Your task to perform on an android device: open wifi settings Image 0: 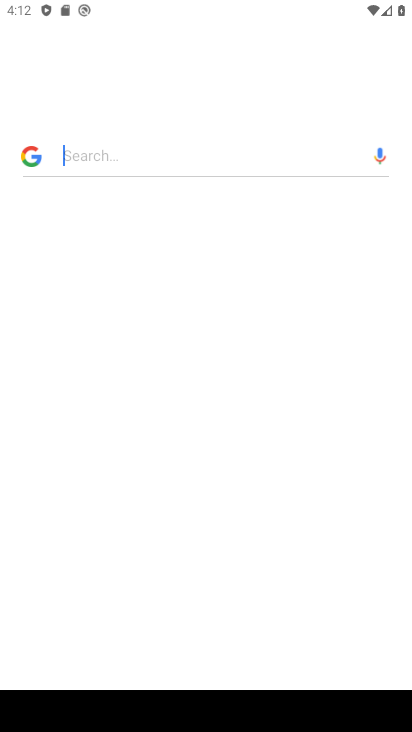
Step 0: drag from (318, 573) to (326, 395)
Your task to perform on an android device: open wifi settings Image 1: 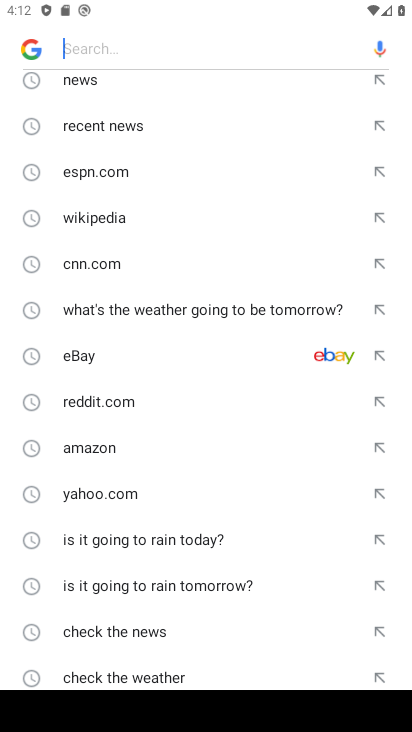
Step 1: press home button
Your task to perform on an android device: open wifi settings Image 2: 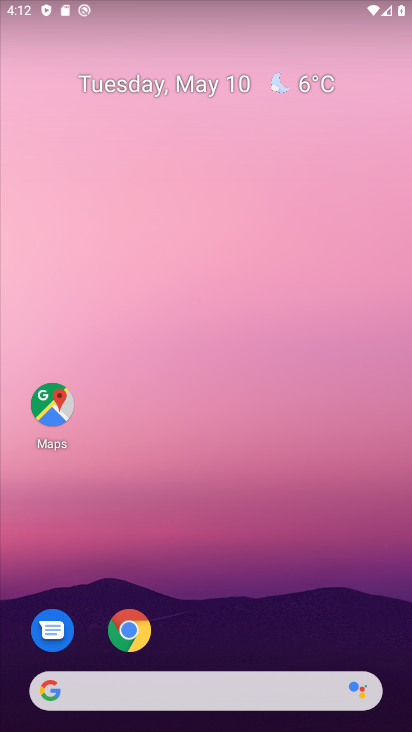
Step 2: drag from (329, 575) to (228, 54)
Your task to perform on an android device: open wifi settings Image 3: 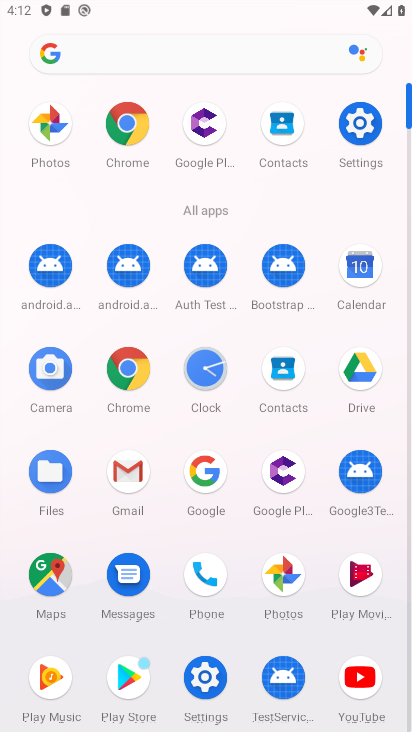
Step 3: click (371, 118)
Your task to perform on an android device: open wifi settings Image 4: 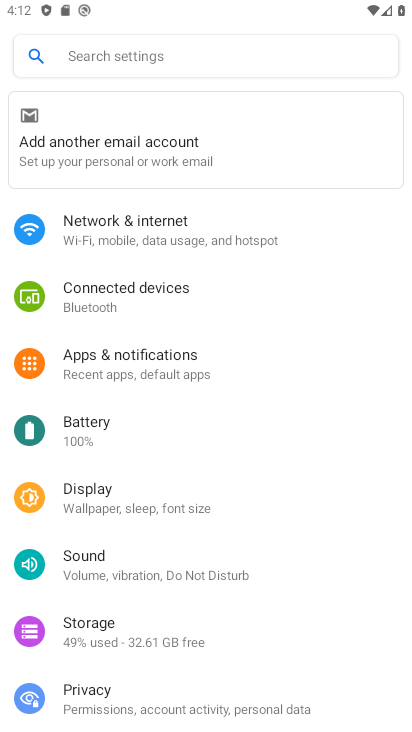
Step 4: drag from (288, 531) to (187, 187)
Your task to perform on an android device: open wifi settings Image 5: 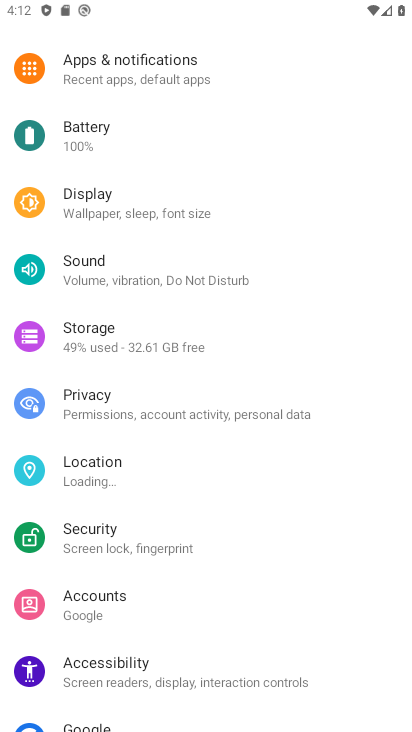
Step 5: drag from (225, 545) to (179, 154)
Your task to perform on an android device: open wifi settings Image 6: 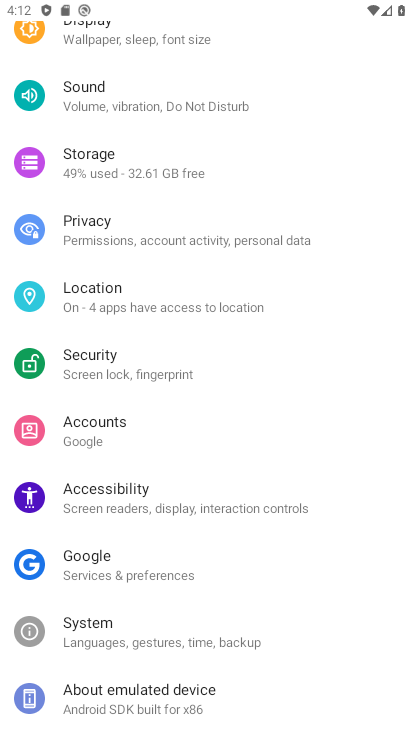
Step 6: drag from (179, 229) to (214, 632)
Your task to perform on an android device: open wifi settings Image 7: 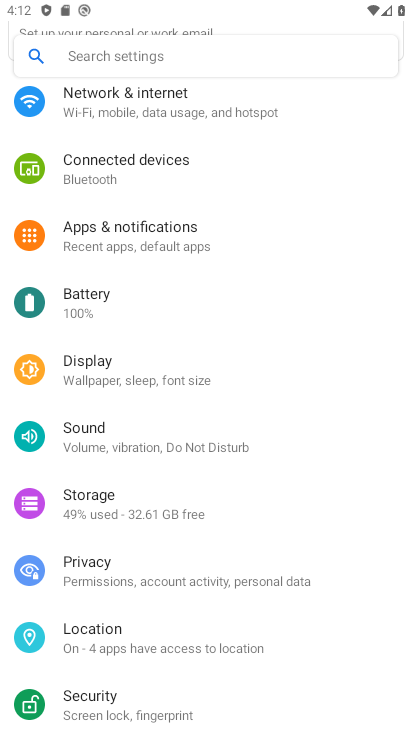
Step 7: drag from (145, 305) to (210, 633)
Your task to perform on an android device: open wifi settings Image 8: 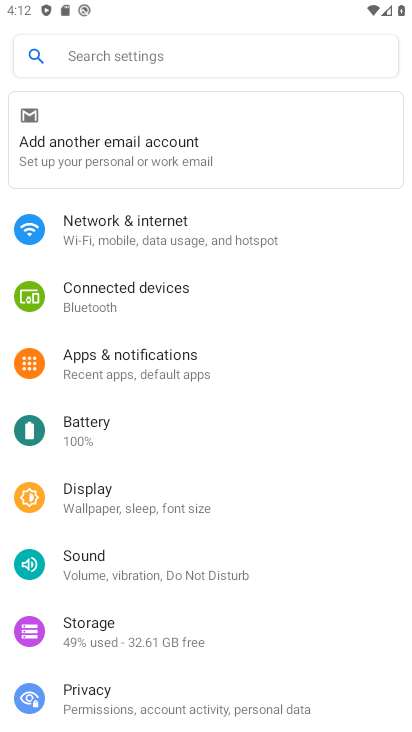
Step 8: click (152, 214)
Your task to perform on an android device: open wifi settings Image 9: 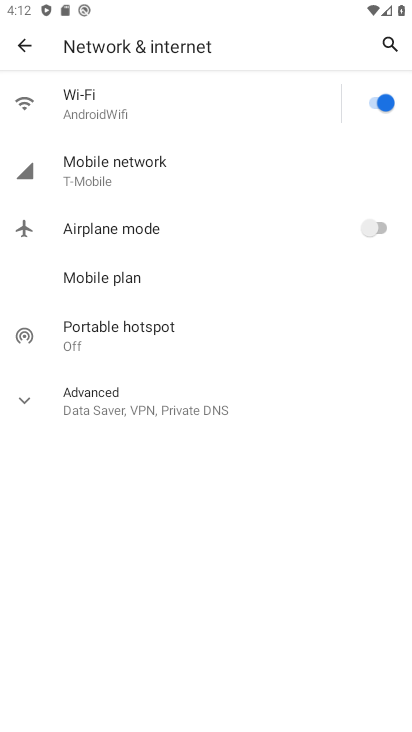
Step 9: click (148, 97)
Your task to perform on an android device: open wifi settings Image 10: 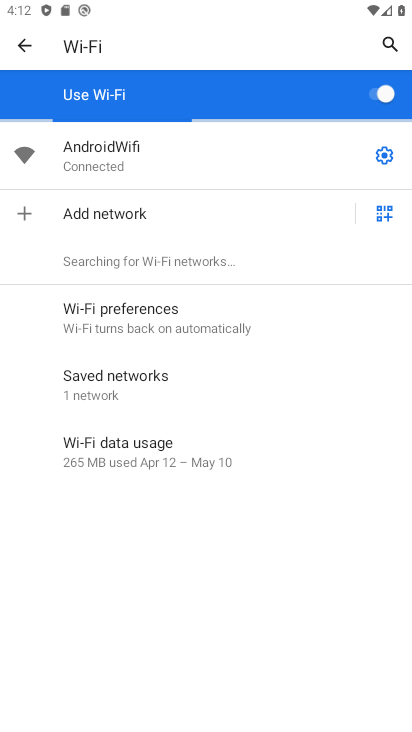
Step 10: click (382, 150)
Your task to perform on an android device: open wifi settings Image 11: 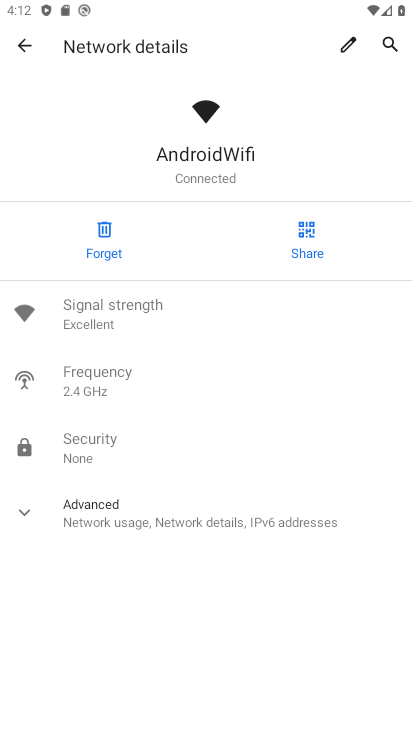
Step 11: task complete